Your task to perform on an android device: turn off notifications in google photos Image 0: 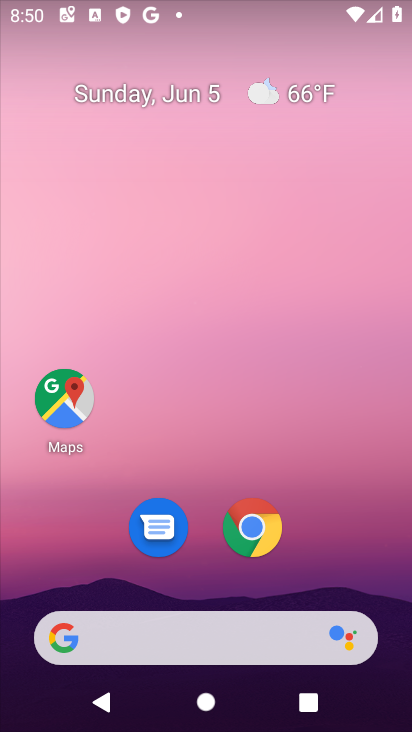
Step 0: drag from (203, 601) to (227, 34)
Your task to perform on an android device: turn off notifications in google photos Image 1: 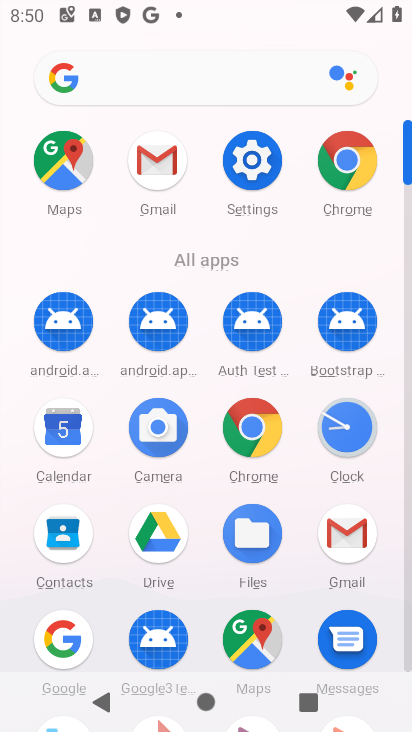
Step 1: drag from (208, 607) to (215, 175)
Your task to perform on an android device: turn off notifications in google photos Image 2: 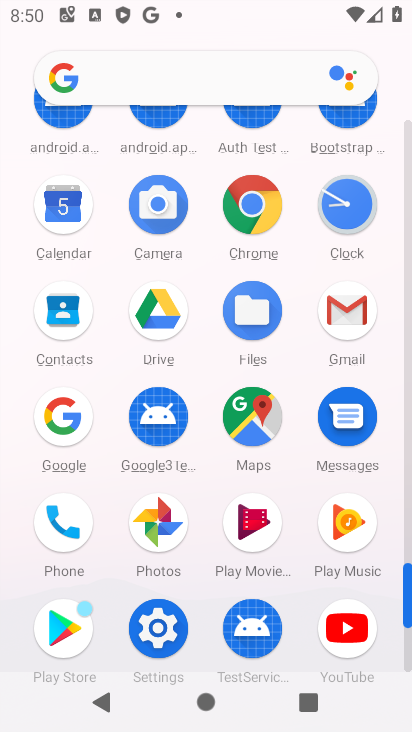
Step 2: click (170, 509)
Your task to perform on an android device: turn off notifications in google photos Image 3: 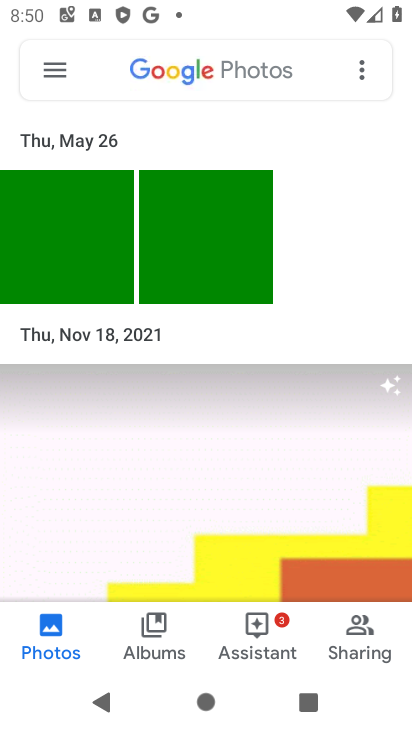
Step 3: click (48, 61)
Your task to perform on an android device: turn off notifications in google photos Image 4: 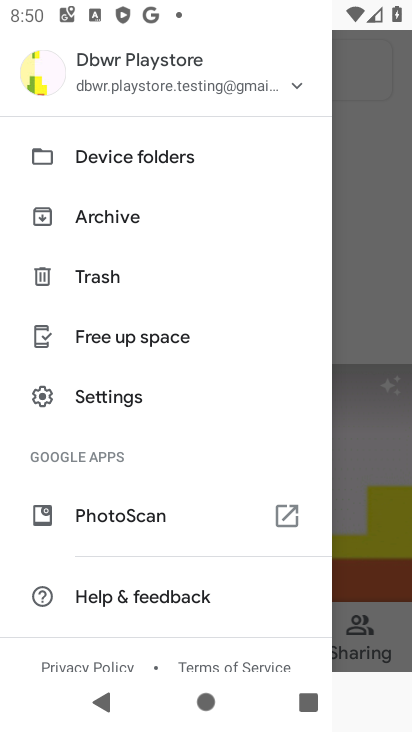
Step 4: click (142, 413)
Your task to perform on an android device: turn off notifications in google photos Image 5: 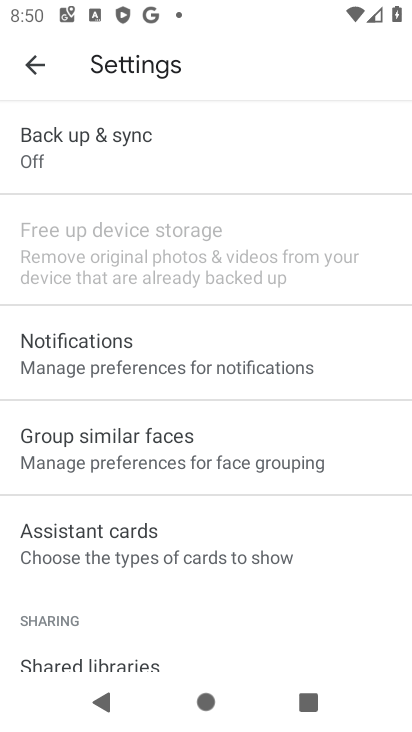
Step 5: drag from (87, 603) to (94, 314)
Your task to perform on an android device: turn off notifications in google photos Image 6: 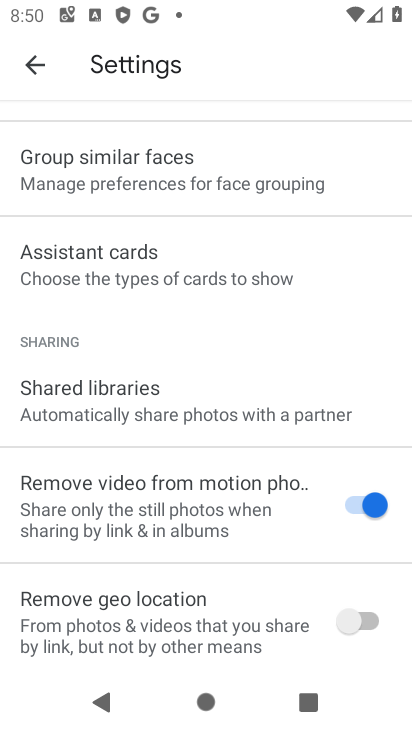
Step 6: drag from (48, 591) to (95, 292)
Your task to perform on an android device: turn off notifications in google photos Image 7: 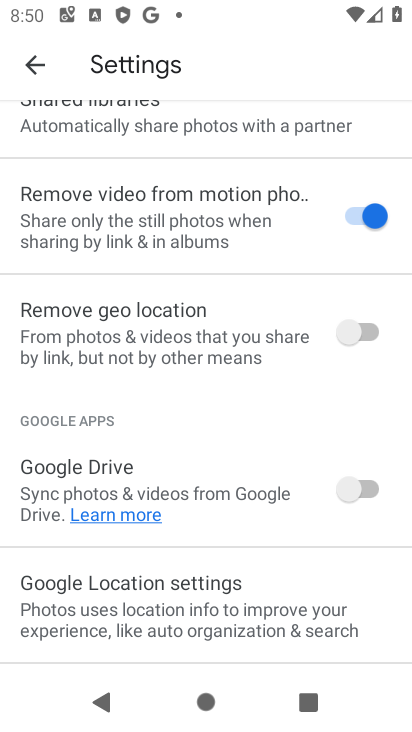
Step 7: click (220, 179)
Your task to perform on an android device: turn off notifications in google photos Image 8: 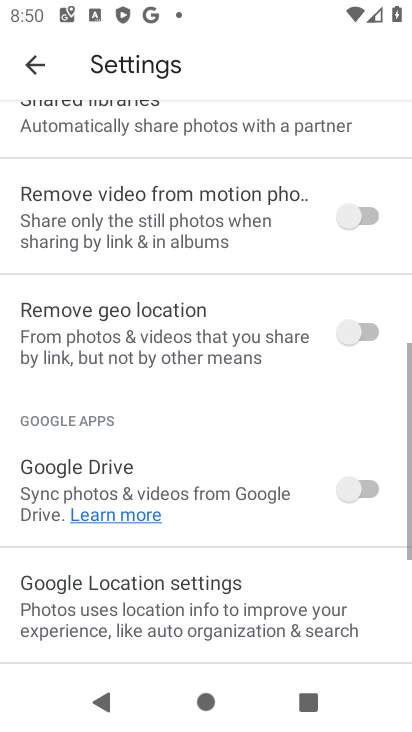
Step 8: drag from (220, 179) to (198, 619)
Your task to perform on an android device: turn off notifications in google photos Image 9: 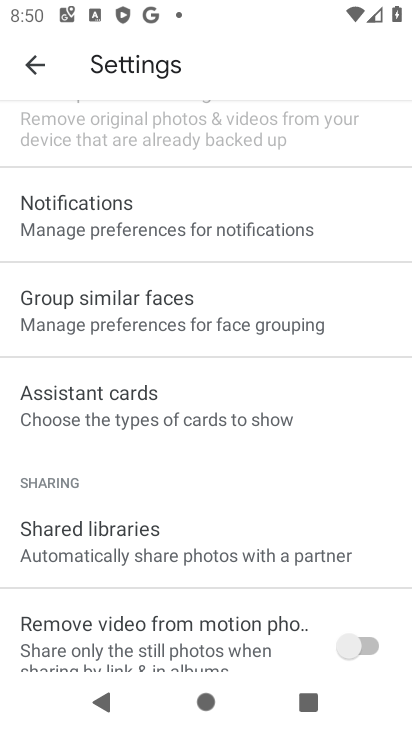
Step 9: click (145, 236)
Your task to perform on an android device: turn off notifications in google photos Image 10: 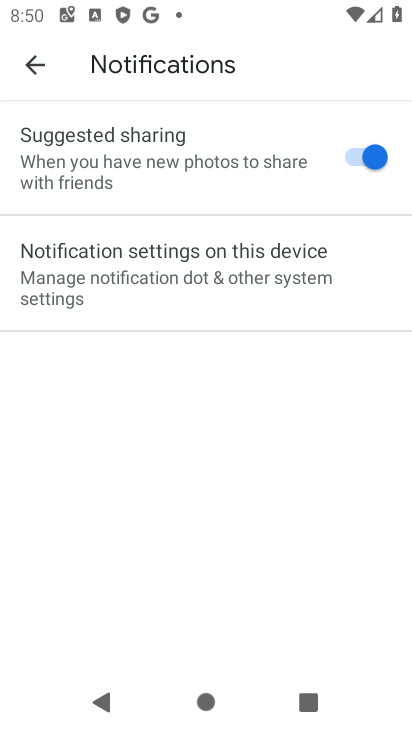
Step 10: click (145, 236)
Your task to perform on an android device: turn off notifications in google photos Image 11: 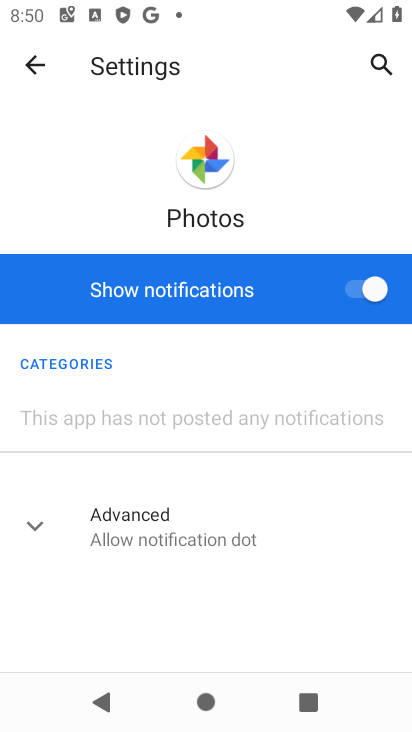
Step 11: click (368, 295)
Your task to perform on an android device: turn off notifications in google photos Image 12: 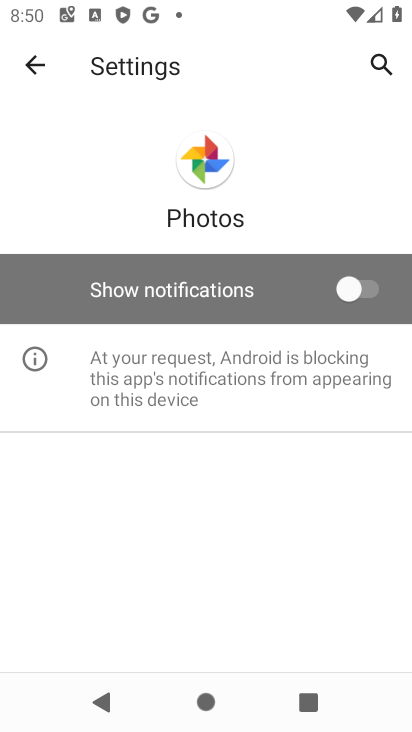
Step 12: task complete